Your task to perform on an android device: turn off smart reply in the gmail app Image 0: 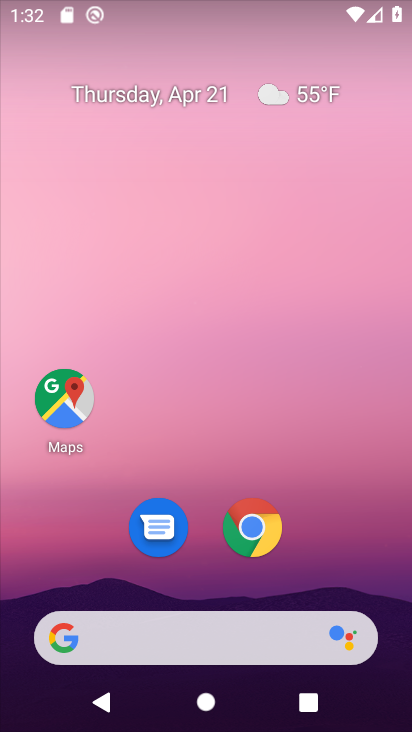
Step 0: drag from (371, 565) to (368, 131)
Your task to perform on an android device: turn off smart reply in the gmail app Image 1: 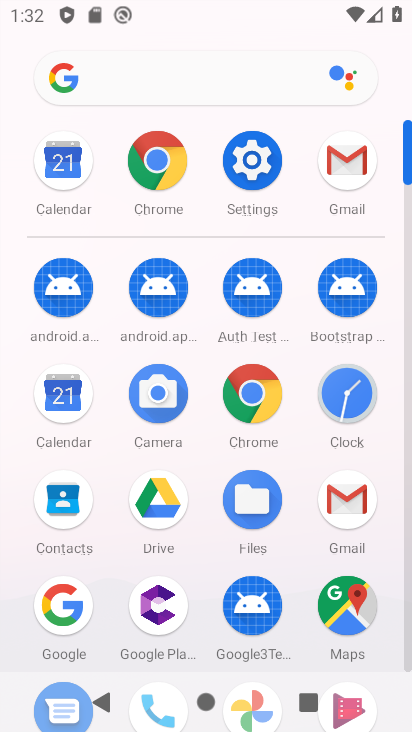
Step 1: click (369, 501)
Your task to perform on an android device: turn off smart reply in the gmail app Image 2: 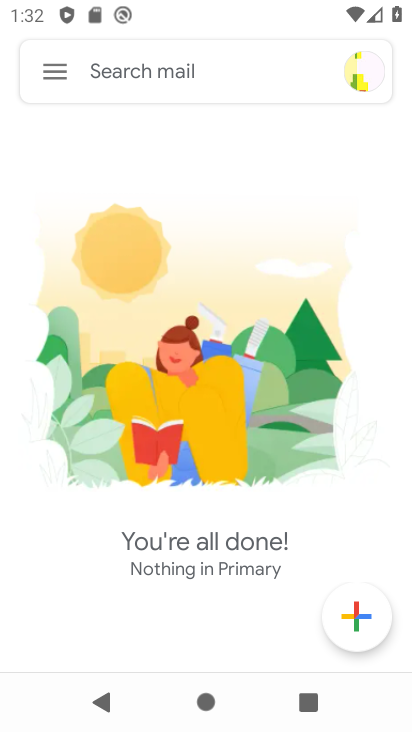
Step 2: click (55, 76)
Your task to perform on an android device: turn off smart reply in the gmail app Image 3: 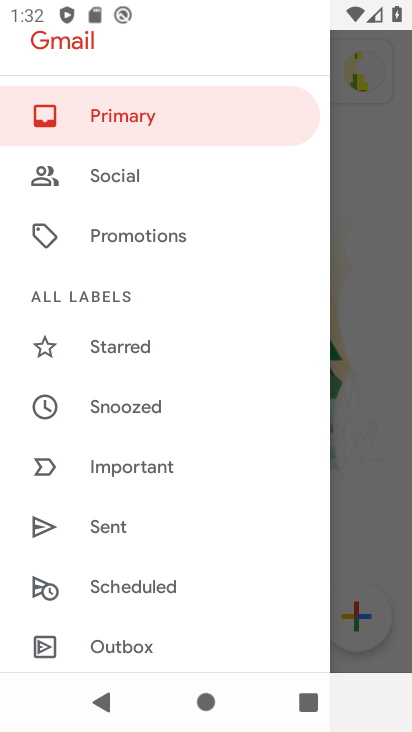
Step 3: drag from (248, 535) to (260, 330)
Your task to perform on an android device: turn off smart reply in the gmail app Image 4: 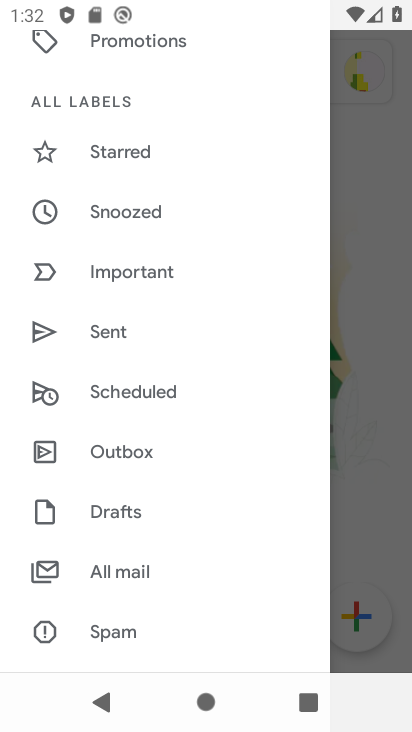
Step 4: drag from (239, 521) to (249, 335)
Your task to perform on an android device: turn off smart reply in the gmail app Image 5: 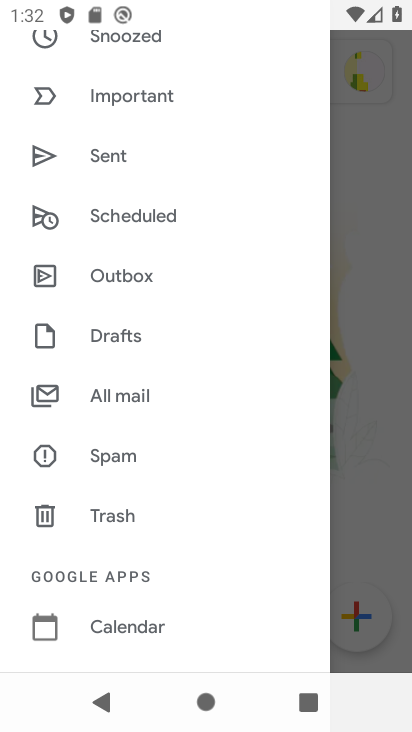
Step 5: drag from (238, 547) to (235, 345)
Your task to perform on an android device: turn off smart reply in the gmail app Image 6: 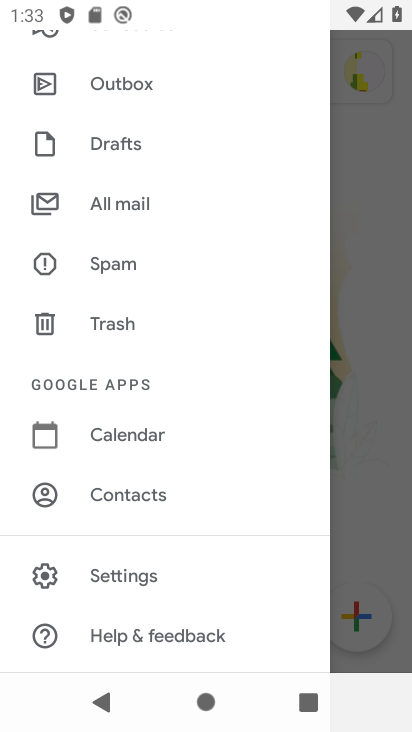
Step 6: drag from (246, 593) to (257, 419)
Your task to perform on an android device: turn off smart reply in the gmail app Image 7: 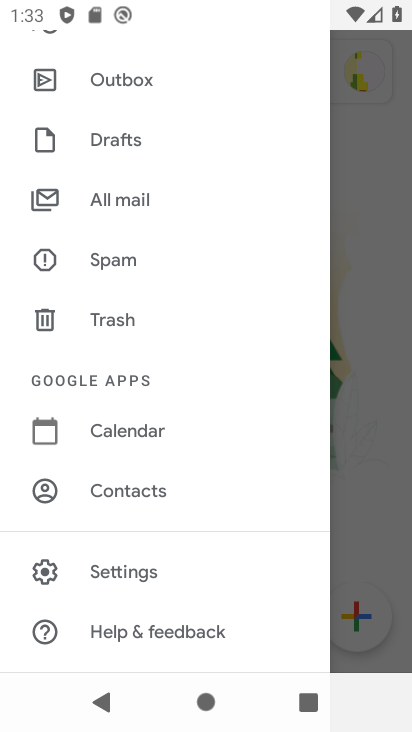
Step 7: click (149, 584)
Your task to perform on an android device: turn off smart reply in the gmail app Image 8: 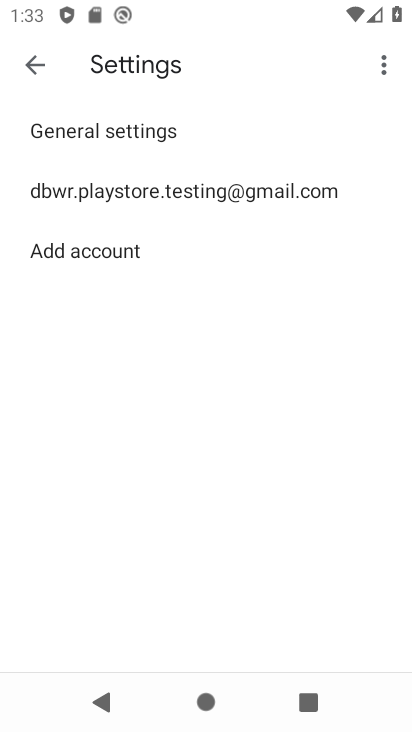
Step 8: click (267, 197)
Your task to perform on an android device: turn off smart reply in the gmail app Image 9: 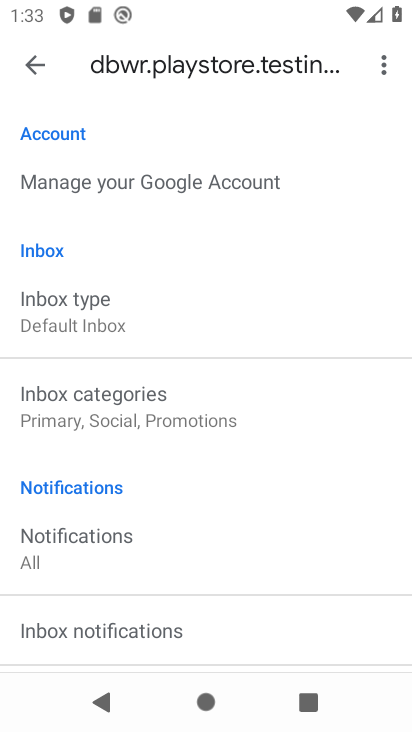
Step 9: drag from (308, 527) to (321, 363)
Your task to perform on an android device: turn off smart reply in the gmail app Image 10: 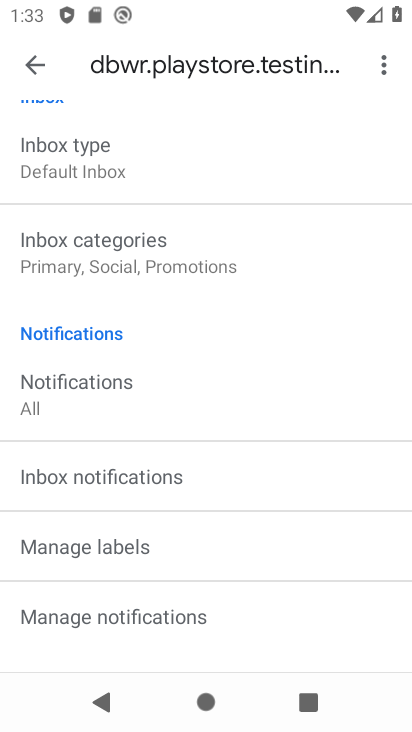
Step 10: drag from (277, 592) to (299, 423)
Your task to perform on an android device: turn off smart reply in the gmail app Image 11: 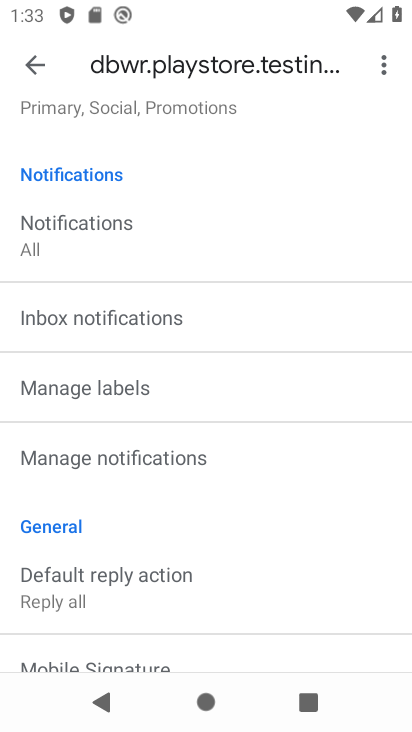
Step 11: drag from (314, 587) to (326, 422)
Your task to perform on an android device: turn off smart reply in the gmail app Image 12: 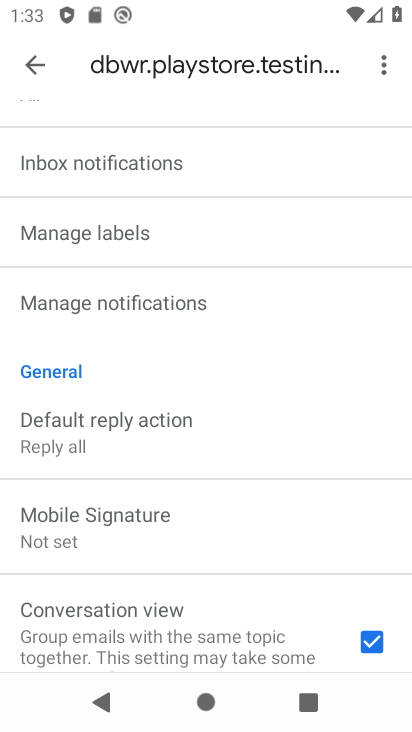
Step 12: drag from (280, 589) to (303, 378)
Your task to perform on an android device: turn off smart reply in the gmail app Image 13: 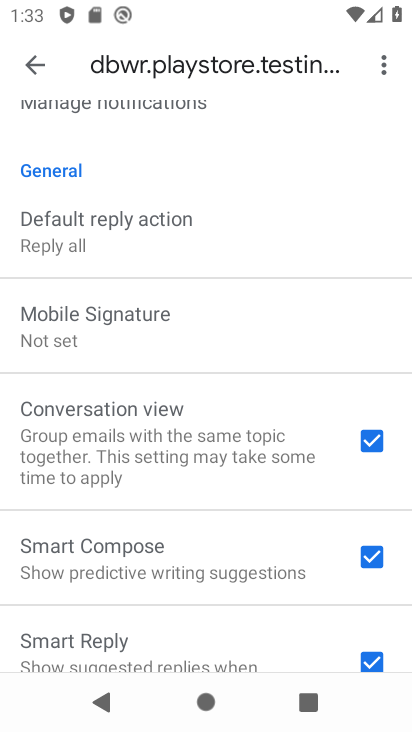
Step 13: drag from (289, 611) to (308, 334)
Your task to perform on an android device: turn off smart reply in the gmail app Image 14: 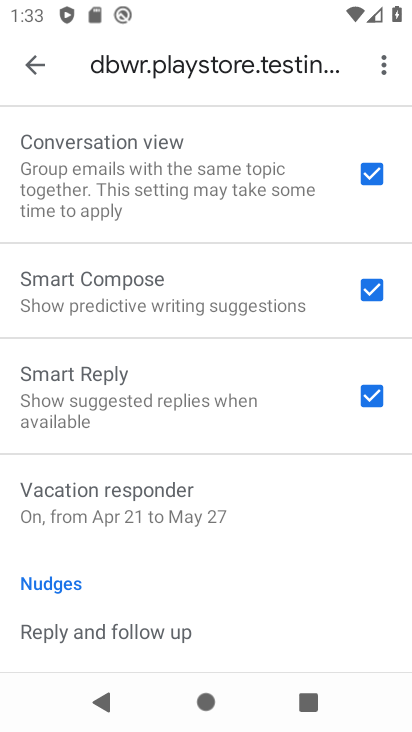
Step 14: drag from (276, 582) to (272, 351)
Your task to perform on an android device: turn off smart reply in the gmail app Image 15: 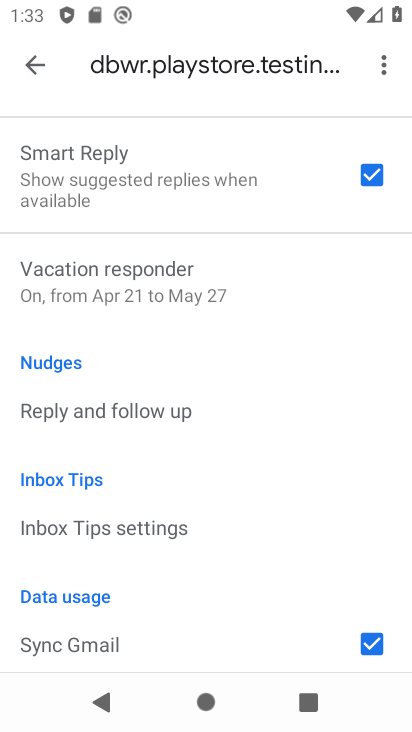
Step 15: drag from (286, 186) to (284, 429)
Your task to perform on an android device: turn off smart reply in the gmail app Image 16: 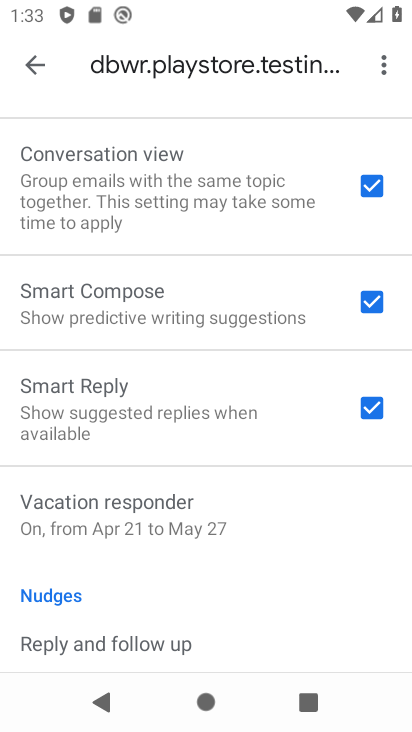
Step 16: drag from (314, 174) to (289, 452)
Your task to perform on an android device: turn off smart reply in the gmail app Image 17: 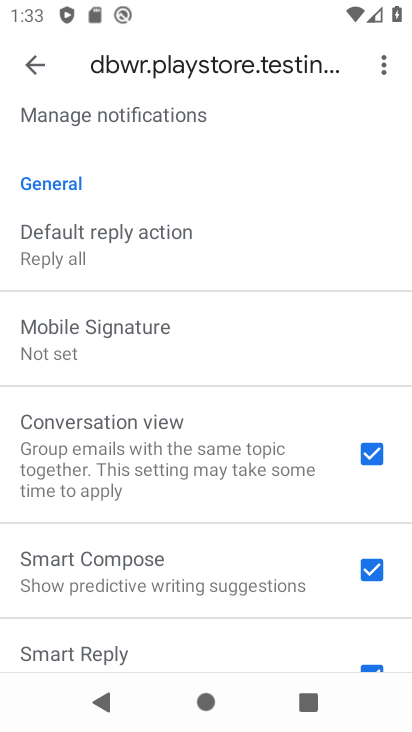
Step 17: drag from (292, 197) to (293, 412)
Your task to perform on an android device: turn off smart reply in the gmail app Image 18: 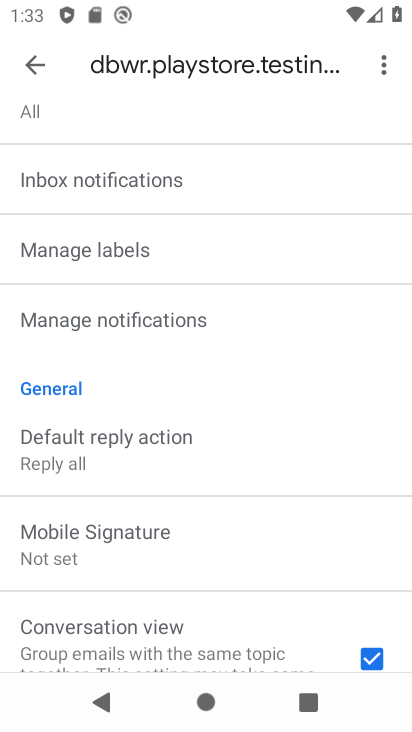
Step 18: drag from (268, 169) to (273, 433)
Your task to perform on an android device: turn off smart reply in the gmail app Image 19: 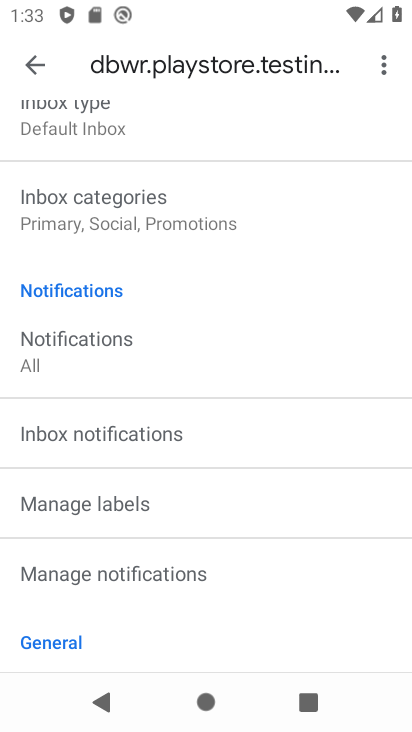
Step 19: drag from (299, 189) to (294, 381)
Your task to perform on an android device: turn off smart reply in the gmail app Image 20: 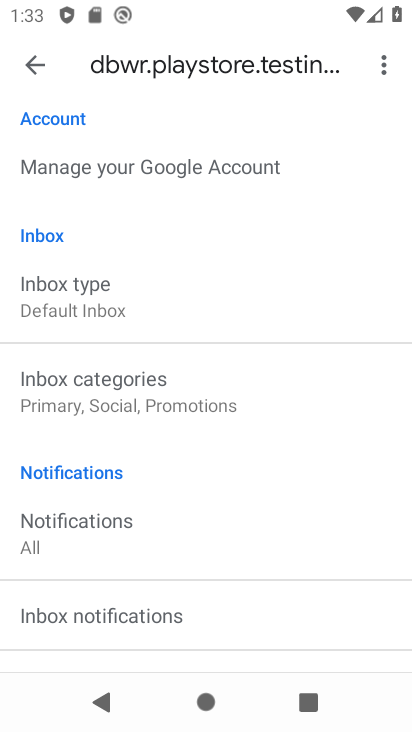
Step 20: drag from (289, 529) to (309, 329)
Your task to perform on an android device: turn off smart reply in the gmail app Image 21: 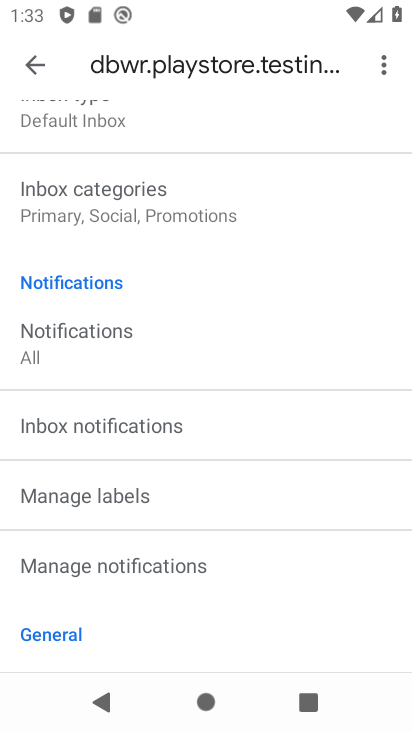
Step 21: drag from (274, 565) to (296, 383)
Your task to perform on an android device: turn off smart reply in the gmail app Image 22: 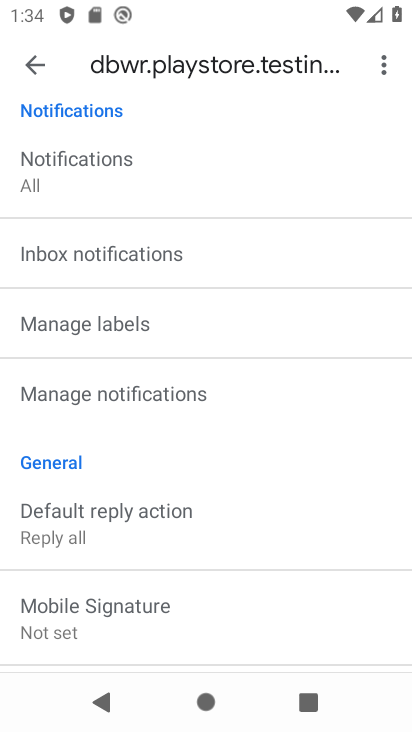
Step 22: drag from (277, 593) to (309, 218)
Your task to perform on an android device: turn off smart reply in the gmail app Image 23: 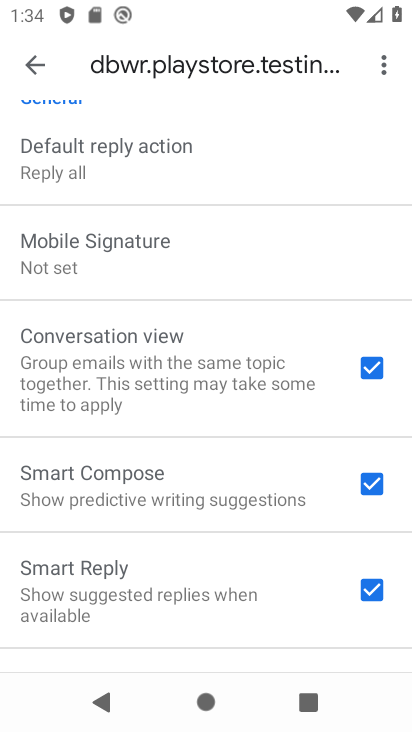
Step 23: drag from (291, 560) to (309, 353)
Your task to perform on an android device: turn off smart reply in the gmail app Image 24: 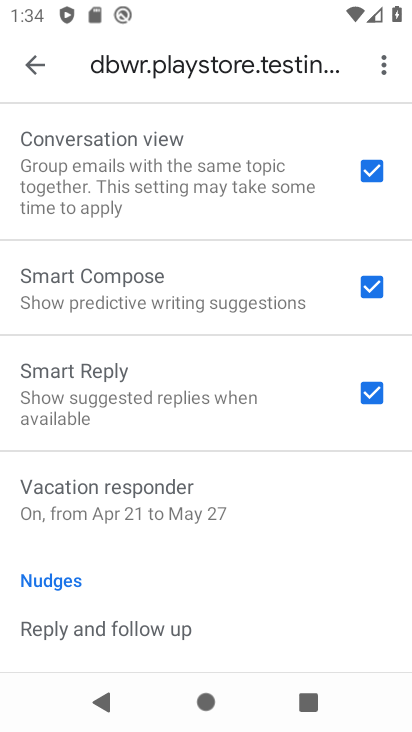
Step 24: click (372, 391)
Your task to perform on an android device: turn off smart reply in the gmail app Image 25: 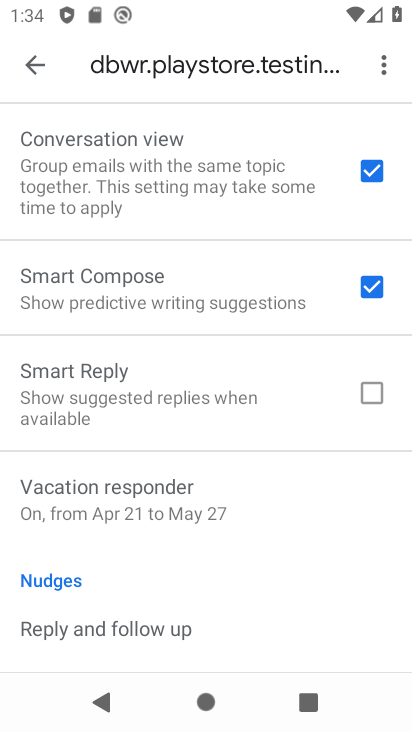
Step 25: task complete